Your task to perform on an android device: Go to Wikipedia Image 0: 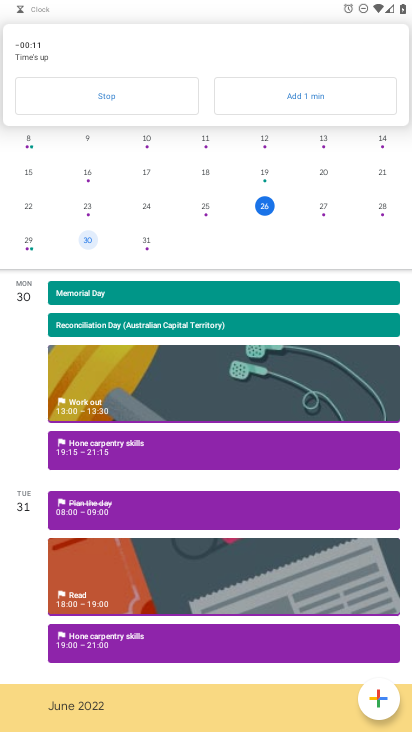
Step 0: press home button
Your task to perform on an android device: Go to Wikipedia Image 1: 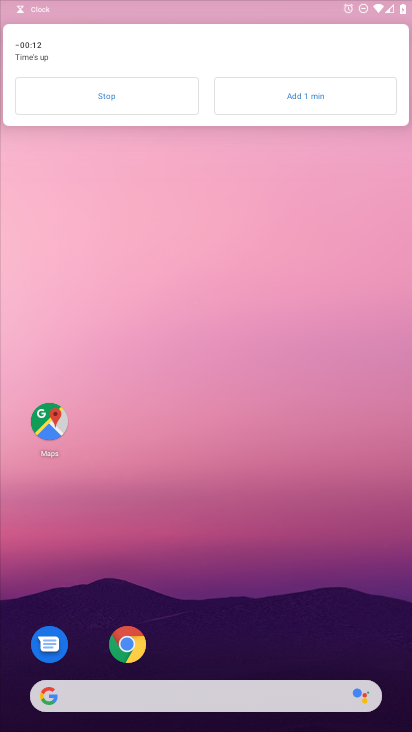
Step 1: drag from (180, 612) to (233, 99)
Your task to perform on an android device: Go to Wikipedia Image 2: 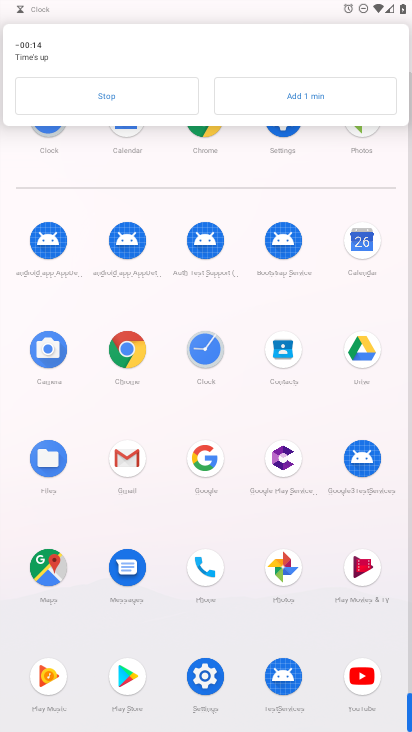
Step 2: click (148, 103)
Your task to perform on an android device: Go to Wikipedia Image 3: 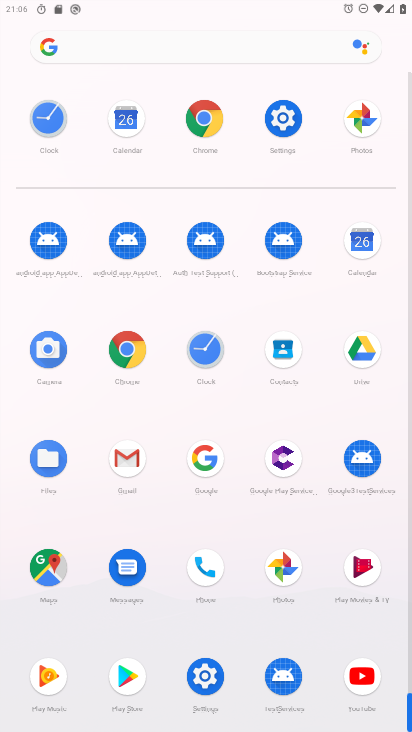
Step 3: click (202, 38)
Your task to perform on an android device: Go to Wikipedia Image 4: 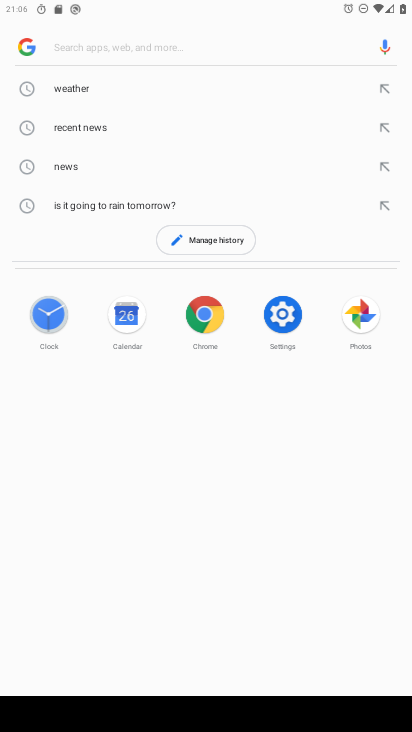
Step 4: type "wikipedia"
Your task to perform on an android device: Go to Wikipedia Image 5: 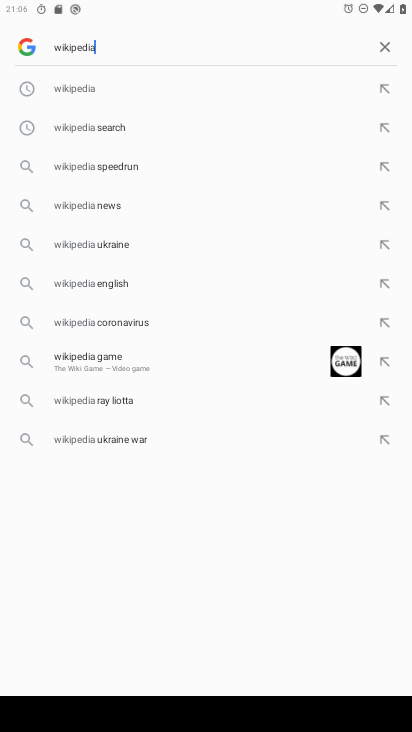
Step 5: click (57, 91)
Your task to perform on an android device: Go to Wikipedia Image 6: 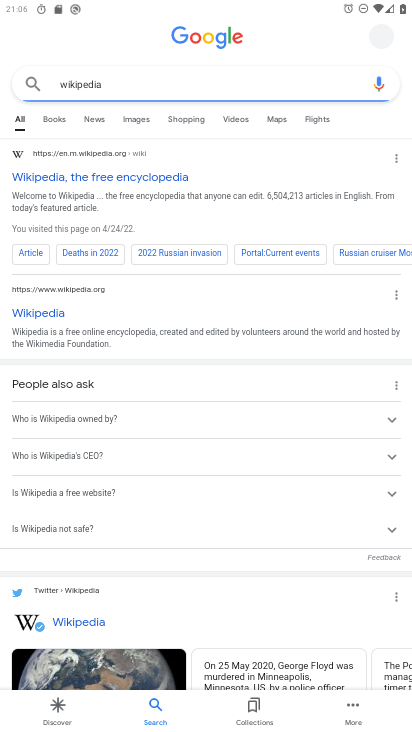
Step 6: drag from (212, 541) to (260, 136)
Your task to perform on an android device: Go to Wikipedia Image 7: 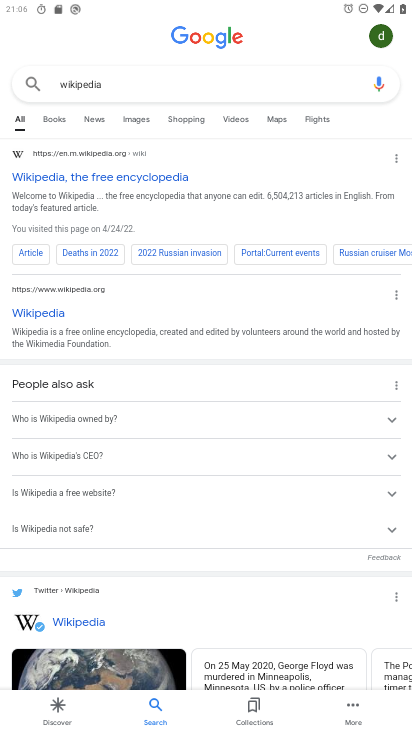
Step 7: click (89, 175)
Your task to perform on an android device: Go to Wikipedia Image 8: 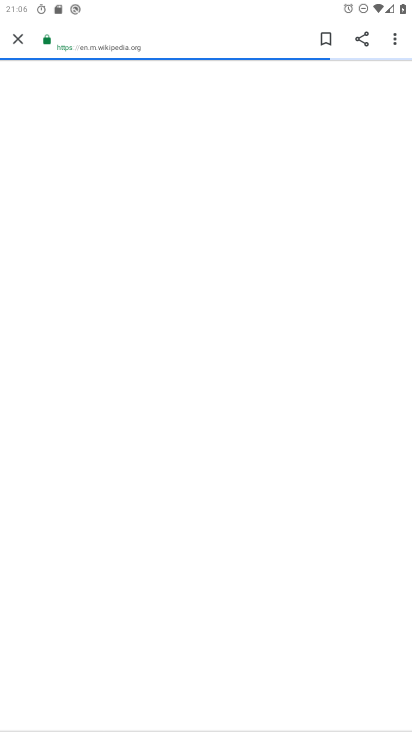
Step 8: task complete